Your task to perform on an android device: Search for sushi restaurants on Maps Image 0: 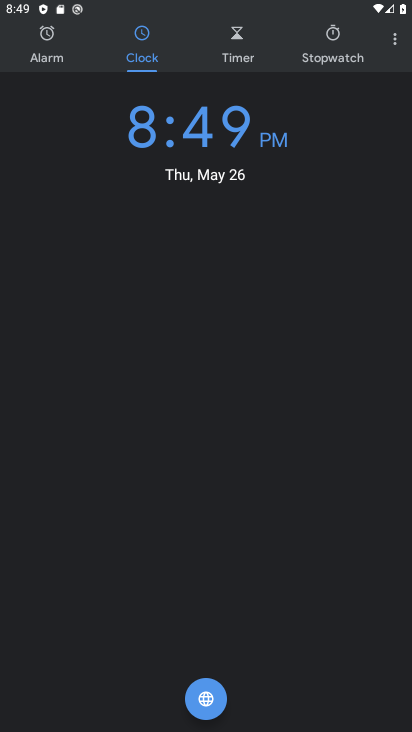
Step 0: press back button
Your task to perform on an android device: Search for sushi restaurants on Maps Image 1: 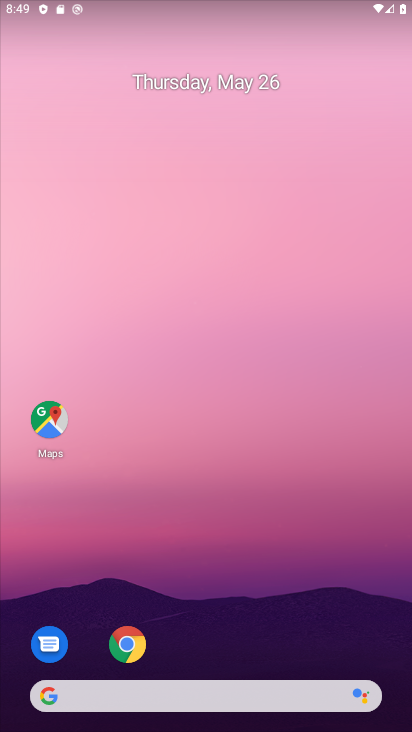
Step 1: click (40, 427)
Your task to perform on an android device: Search for sushi restaurants on Maps Image 2: 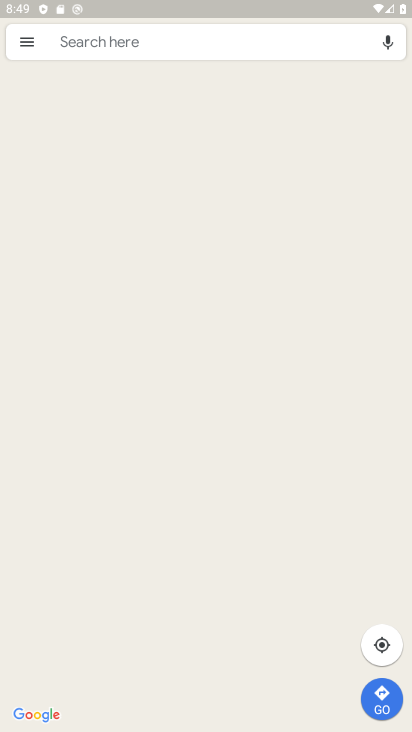
Step 2: click (110, 51)
Your task to perform on an android device: Search for sushi restaurants on Maps Image 3: 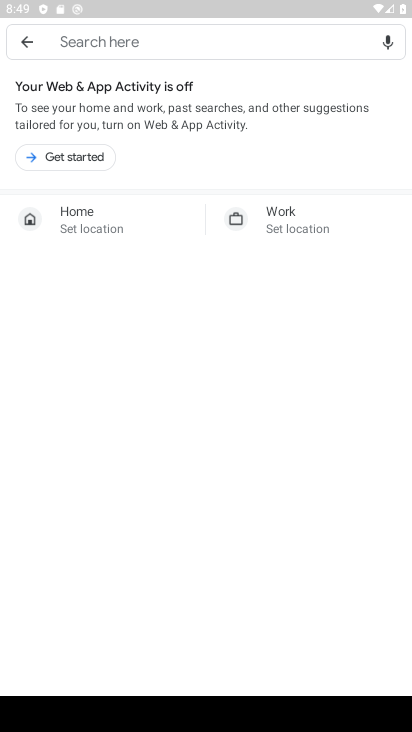
Step 3: click (106, 42)
Your task to perform on an android device: Search for sushi restaurants on Maps Image 4: 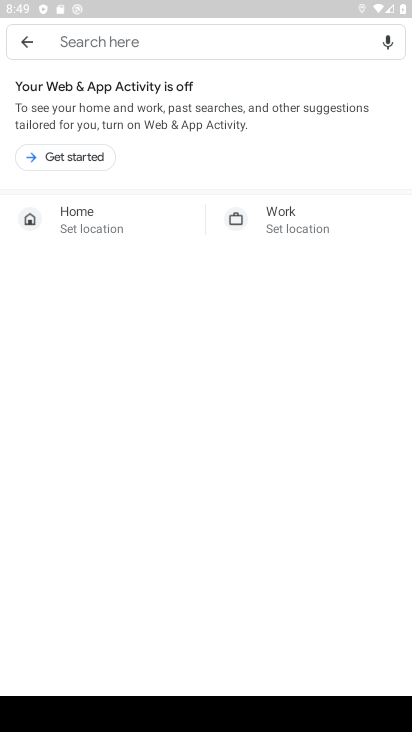
Step 4: type "sushi restrants"
Your task to perform on an android device: Search for sushi restaurants on Maps Image 5: 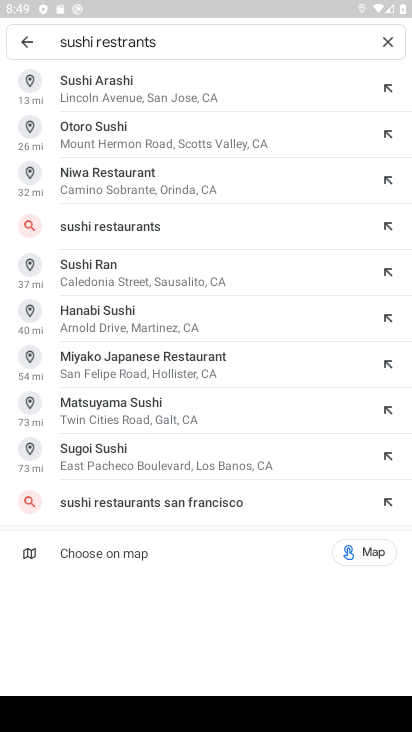
Step 5: click (112, 220)
Your task to perform on an android device: Search for sushi restaurants on Maps Image 6: 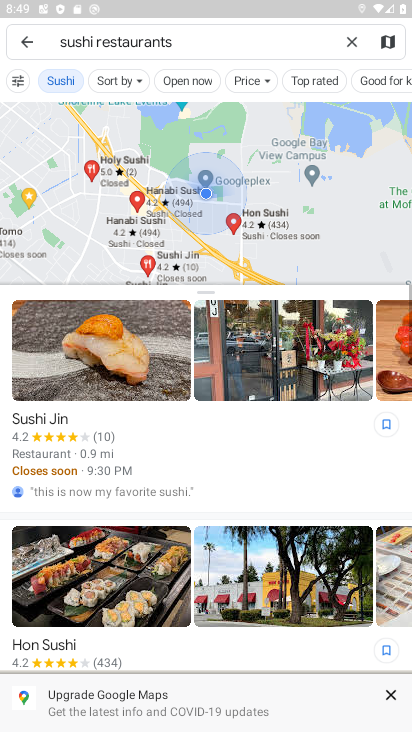
Step 6: task complete